Your task to perform on an android device: toggle airplane mode Image 0: 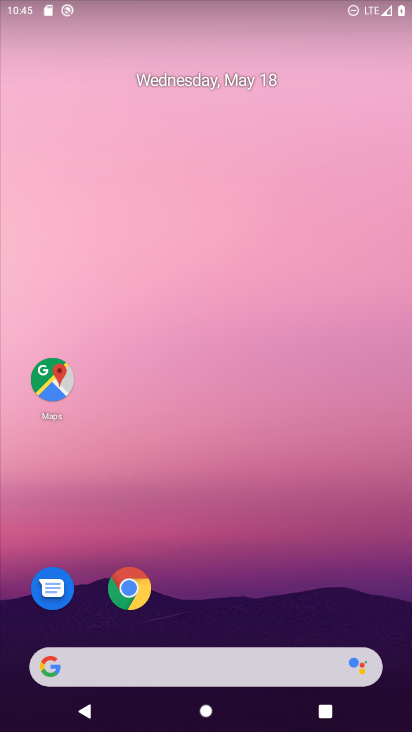
Step 0: drag from (303, 619) to (312, 13)
Your task to perform on an android device: toggle airplane mode Image 1: 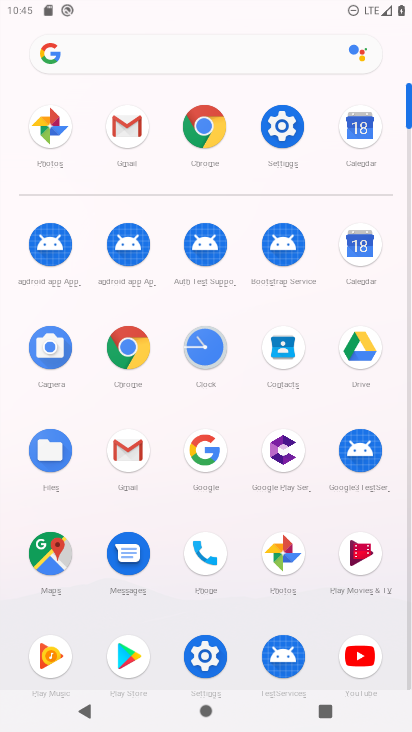
Step 1: click (283, 113)
Your task to perform on an android device: toggle airplane mode Image 2: 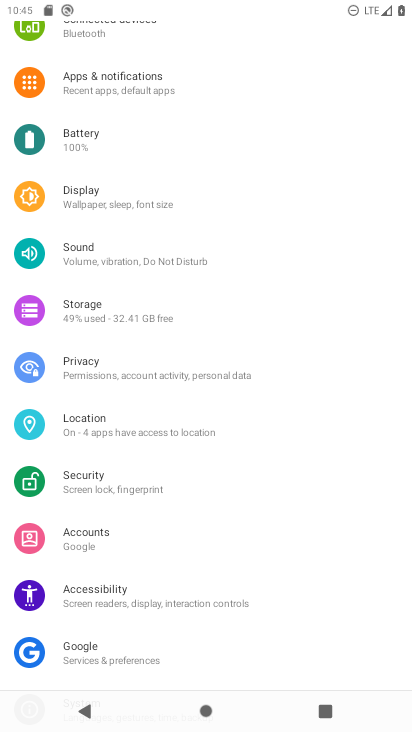
Step 2: drag from (309, 118) to (294, 517)
Your task to perform on an android device: toggle airplane mode Image 3: 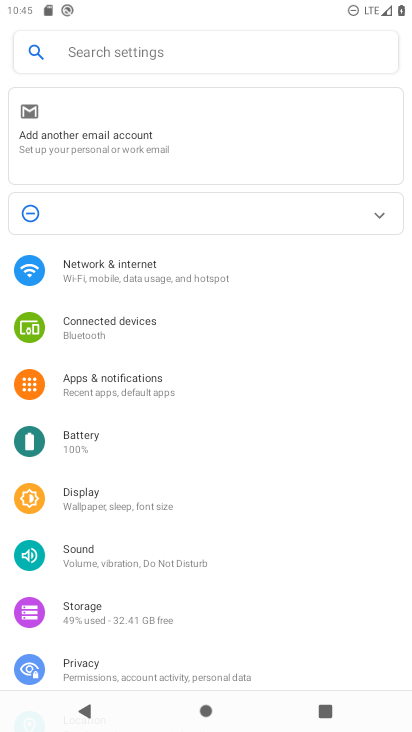
Step 3: click (83, 279)
Your task to perform on an android device: toggle airplane mode Image 4: 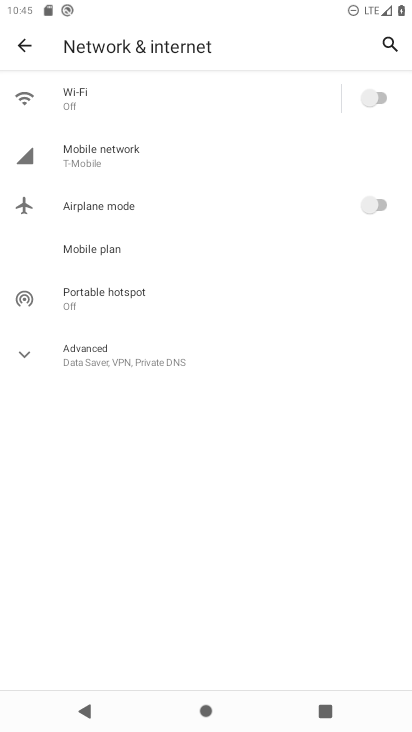
Step 4: click (376, 212)
Your task to perform on an android device: toggle airplane mode Image 5: 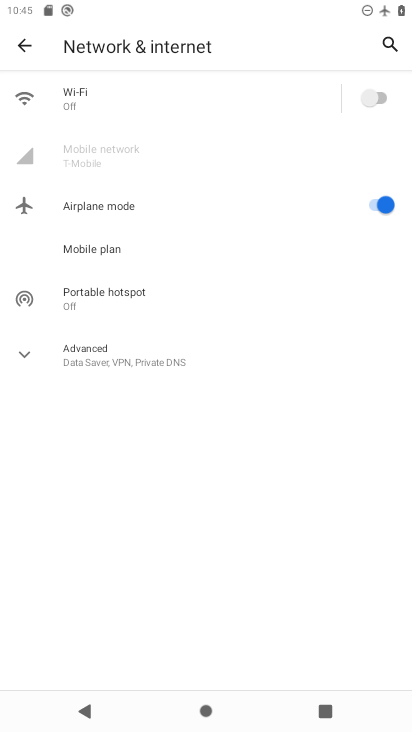
Step 5: task complete